Your task to perform on an android device: refresh tabs in the chrome app Image 0: 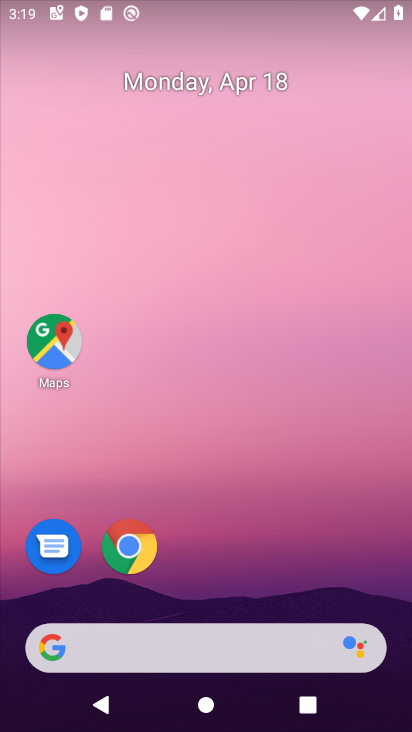
Step 0: drag from (261, 545) to (346, 55)
Your task to perform on an android device: refresh tabs in the chrome app Image 1: 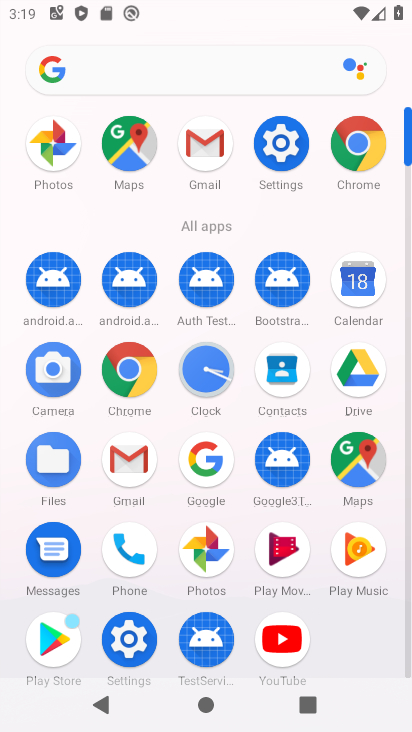
Step 1: click (138, 376)
Your task to perform on an android device: refresh tabs in the chrome app Image 2: 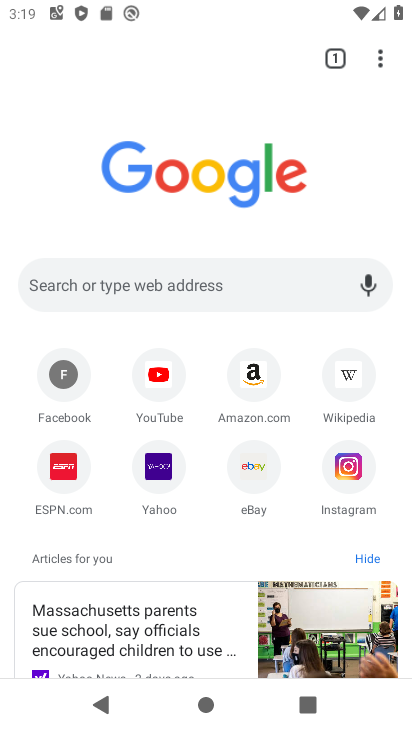
Step 2: click (384, 58)
Your task to perform on an android device: refresh tabs in the chrome app Image 3: 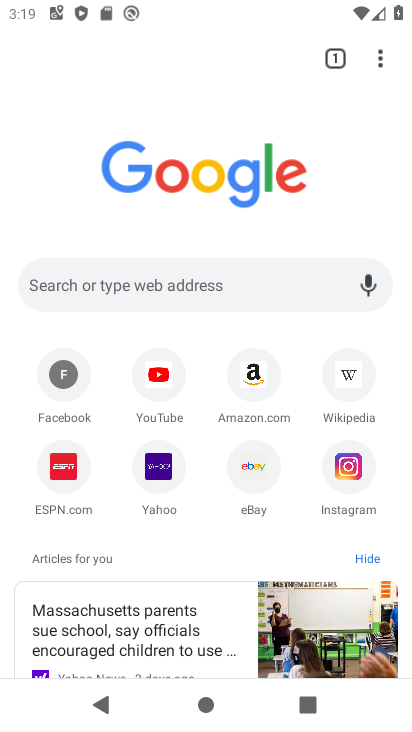
Step 3: click (380, 54)
Your task to perform on an android device: refresh tabs in the chrome app Image 4: 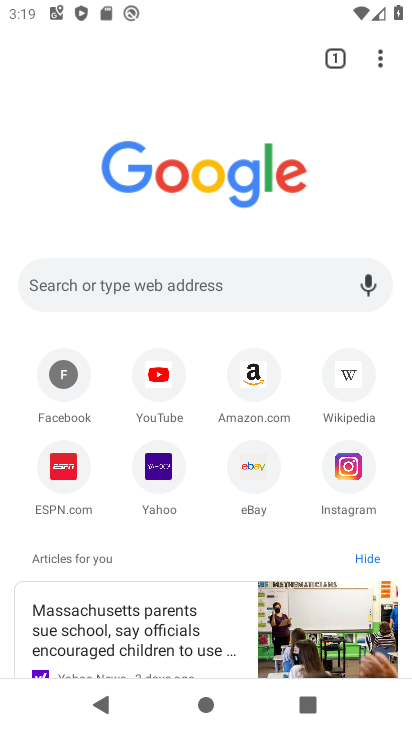
Step 4: task complete